Your task to perform on an android device: install app "WhatsApp Messenger" Image 0: 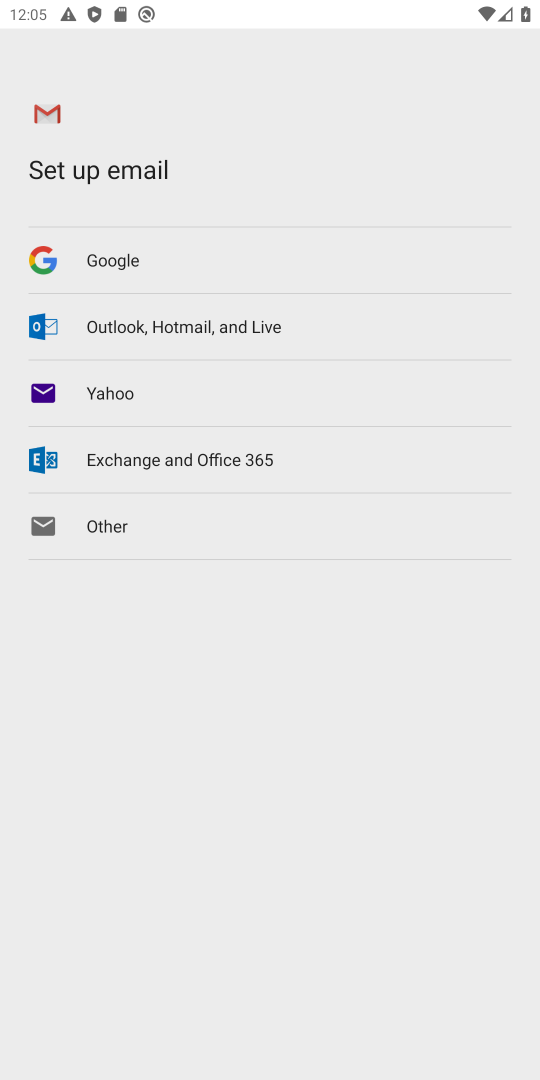
Step 0: press home button
Your task to perform on an android device: install app "WhatsApp Messenger" Image 1: 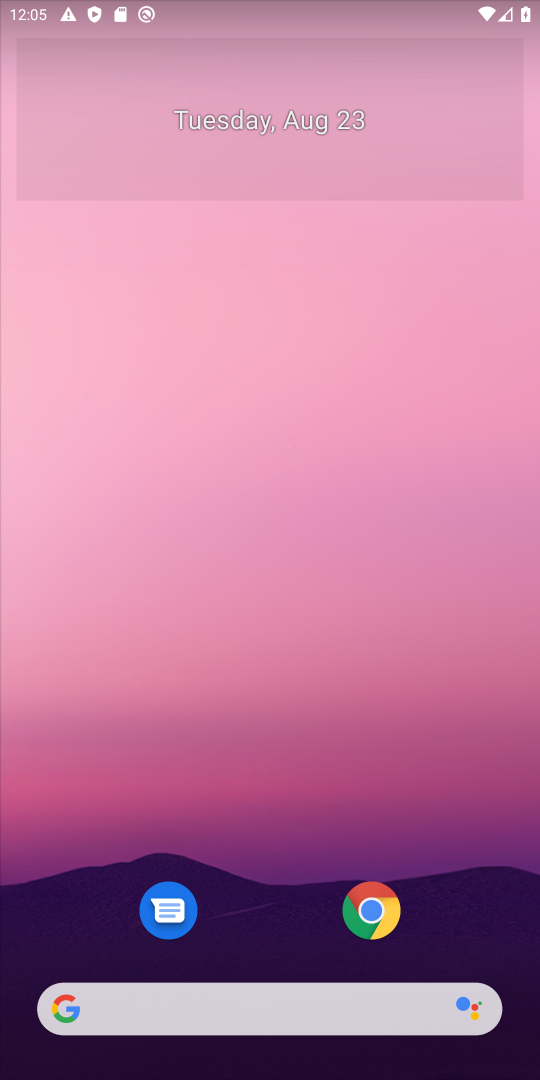
Step 1: drag from (339, 348) to (394, 121)
Your task to perform on an android device: install app "WhatsApp Messenger" Image 2: 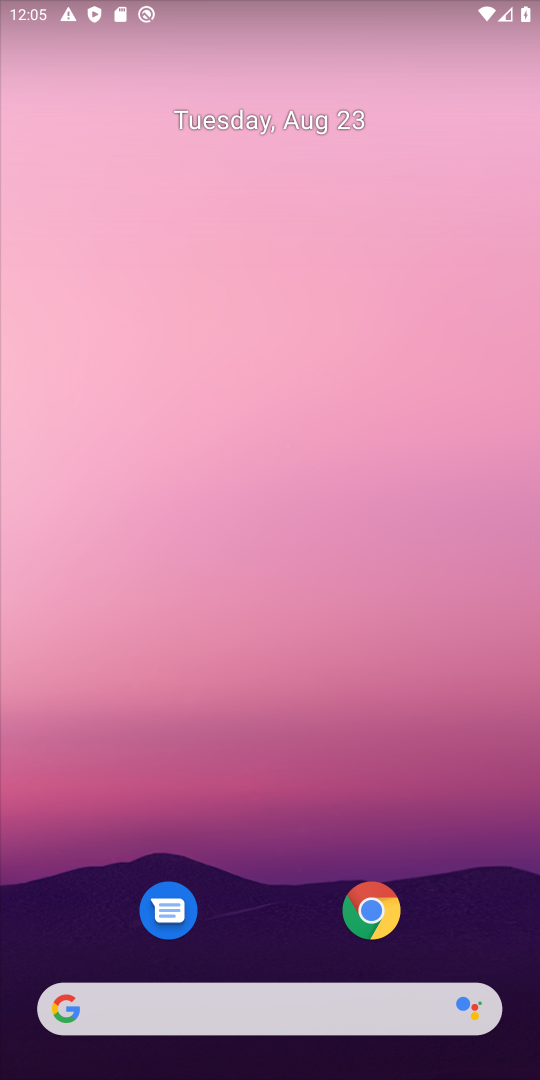
Step 2: drag from (325, 927) to (335, 100)
Your task to perform on an android device: install app "WhatsApp Messenger" Image 3: 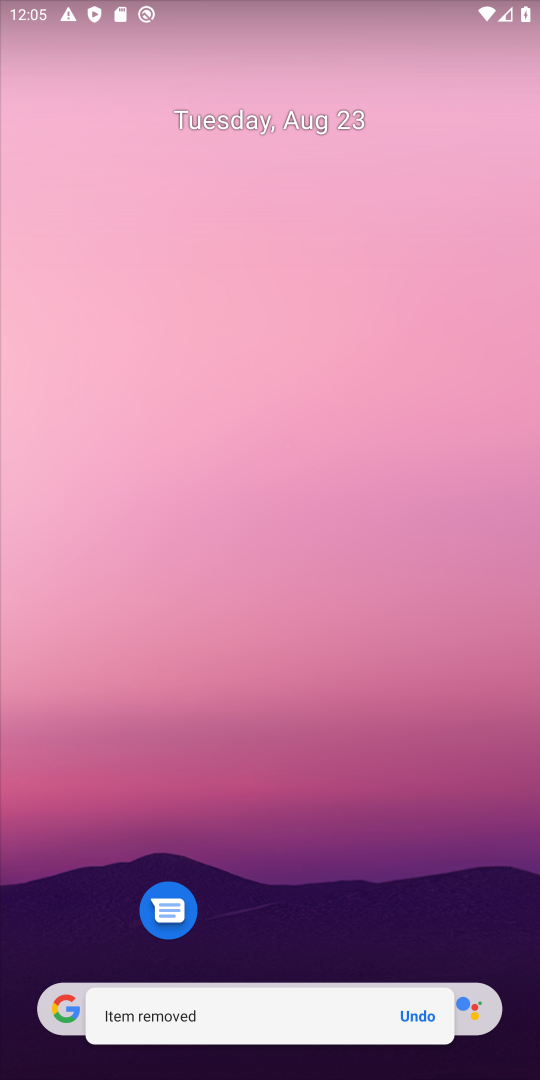
Step 3: click (289, 717)
Your task to perform on an android device: install app "WhatsApp Messenger" Image 4: 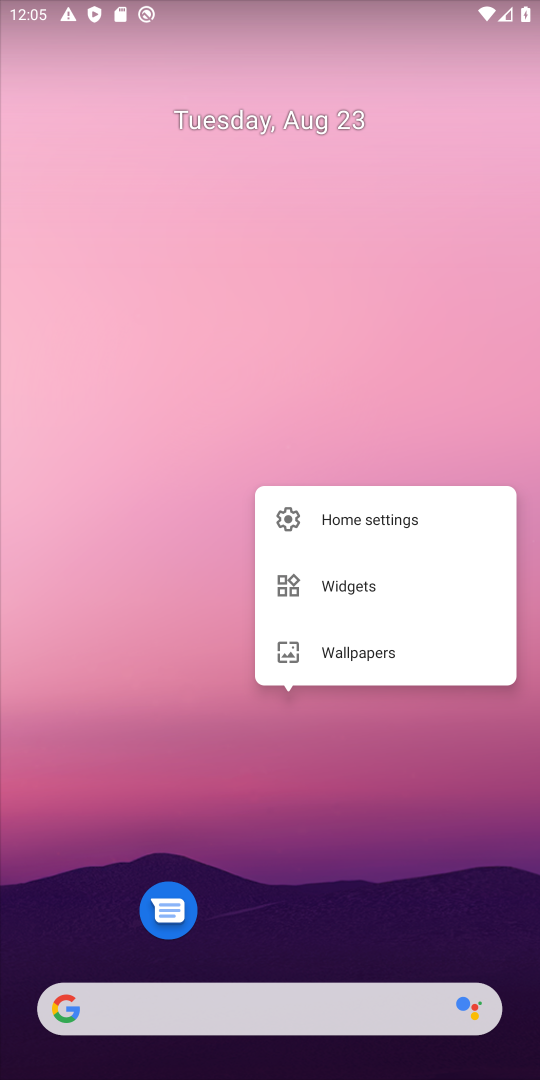
Step 4: click (206, 711)
Your task to perform on an android device: install app "WhatsApp Messenger" Image 5: 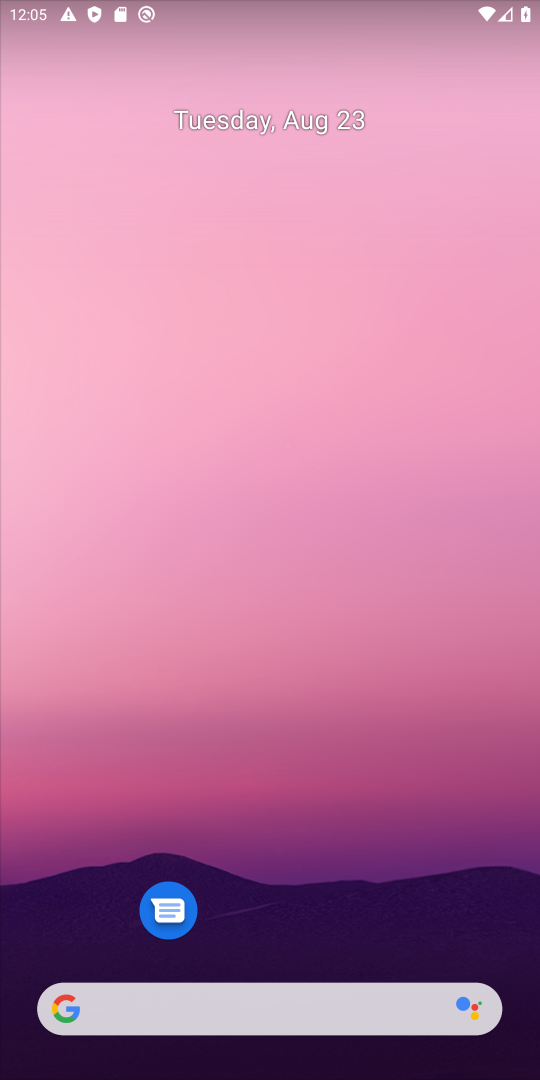
Step 5: drag from (367, 923) to (389, 10)
Your task to perform on an android device: install app "WhatsApp Messenger" Image 6: 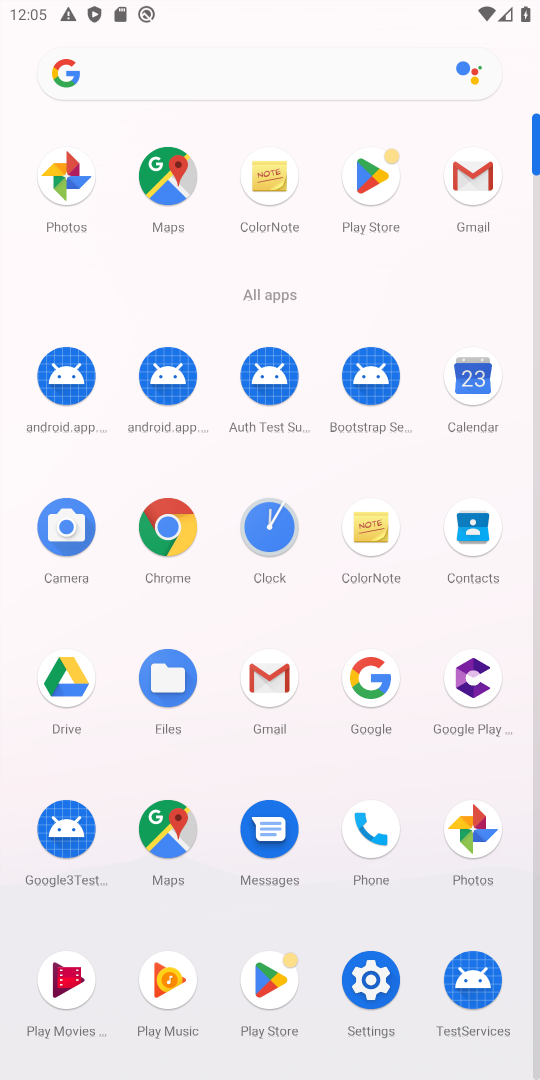
Step 6: click (363, 192)
Your task to perform on an android device: install app "WhatsApp Messenger" Image 7: 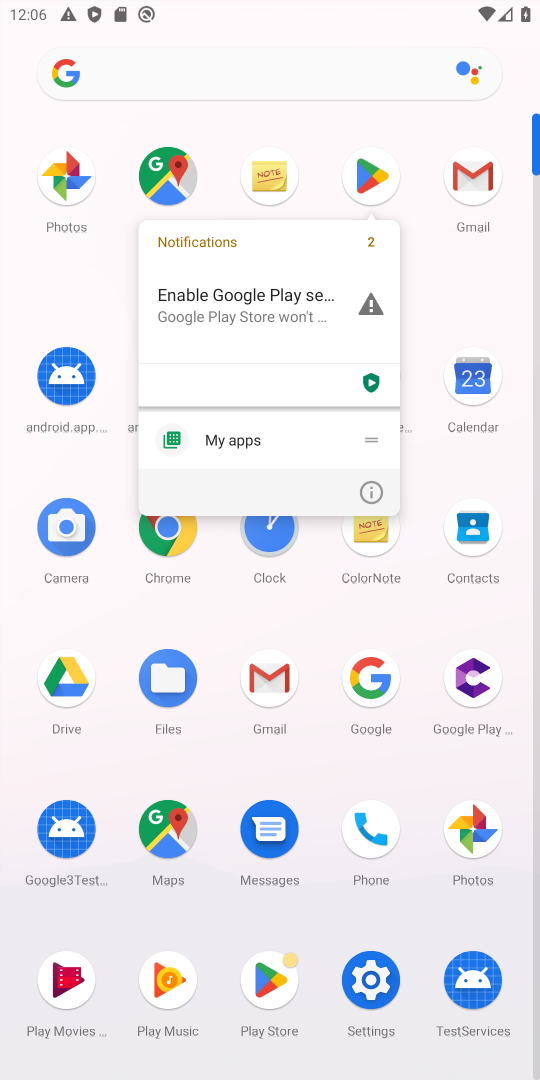
Step 7: click (363, 193)
Your task to perform on an android device: install app "WhatsApp Messenger" Image 8: 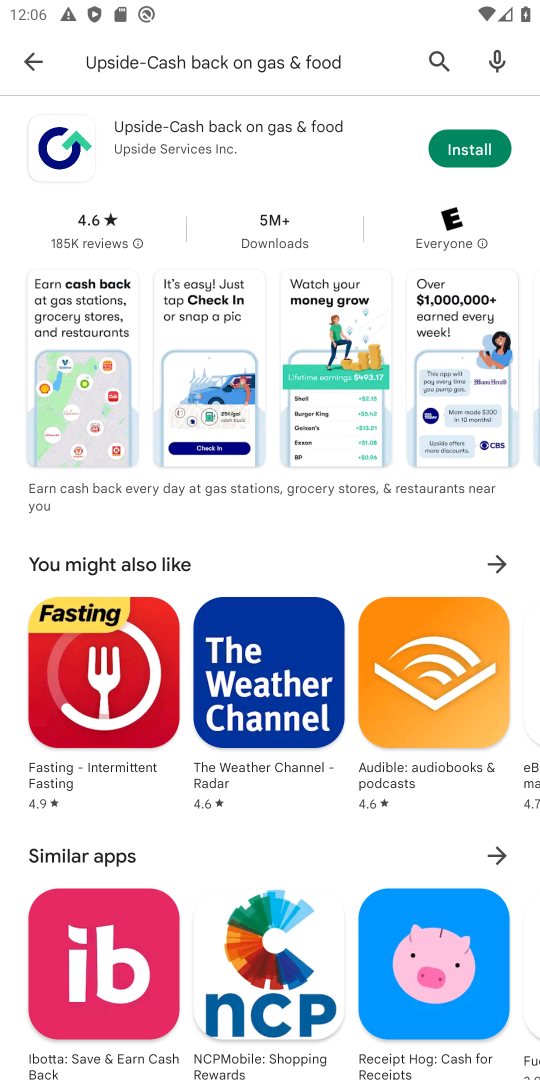
Step 8: press back button
Your task to perform on an android device: install app "WhatsApp Messenger" Image 9: 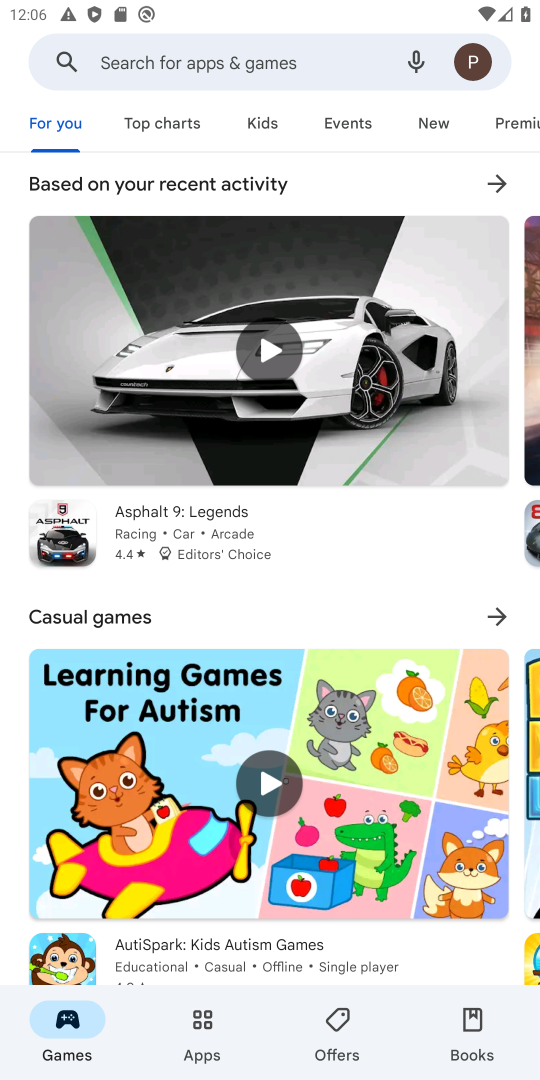
Step 9: click (143, 55)
Your task to perform on an android device: install app "WhatsApp Messenger" Image 10: 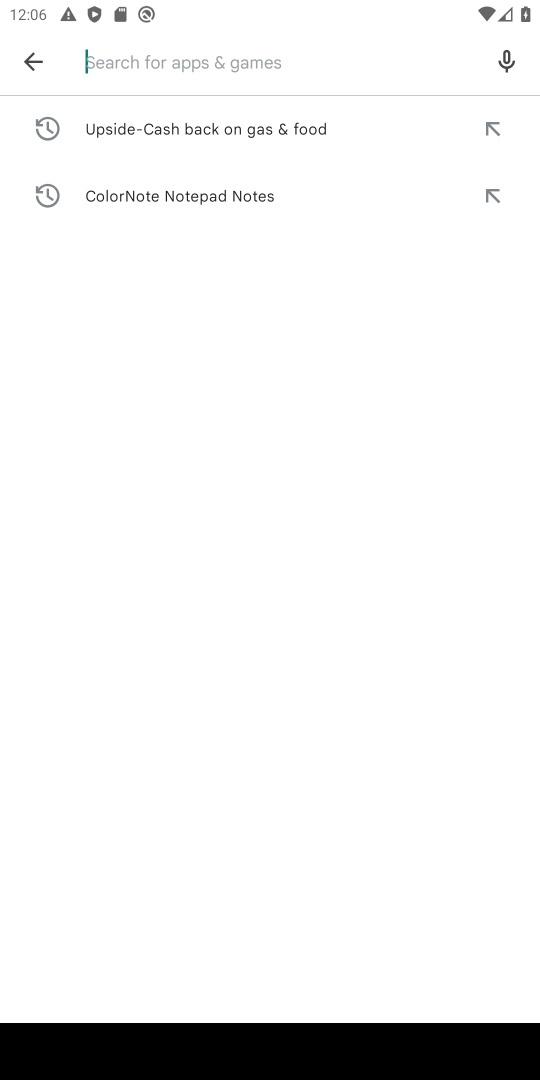
Step 10: type "WhatsApp Messenger"
Your task to perform on an android device: install app "WhatsApp Messenger" Image 11: 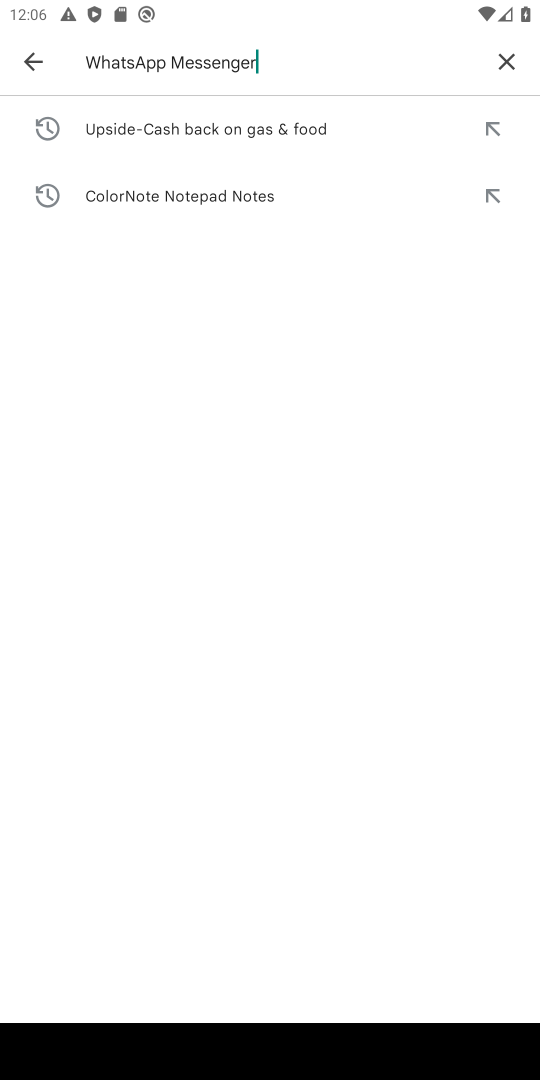
Step 11: press enter
Your task to perform on an android device: install app "WhatsApp Messenger" Image 12: 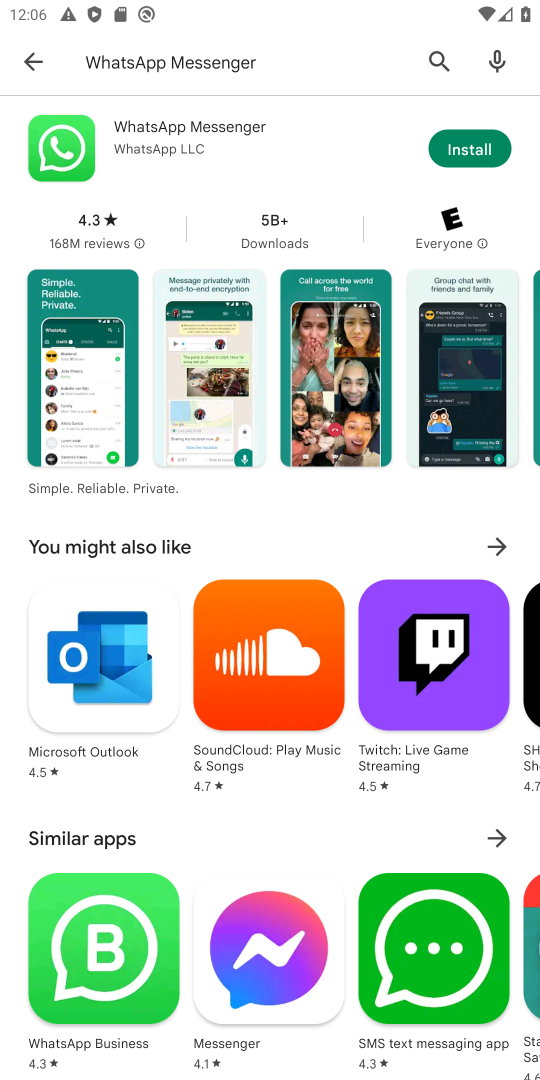
Step 12: click (483, 149)
Your task to perform on an android device: install app "WhatsApp Messenger" Image 13: 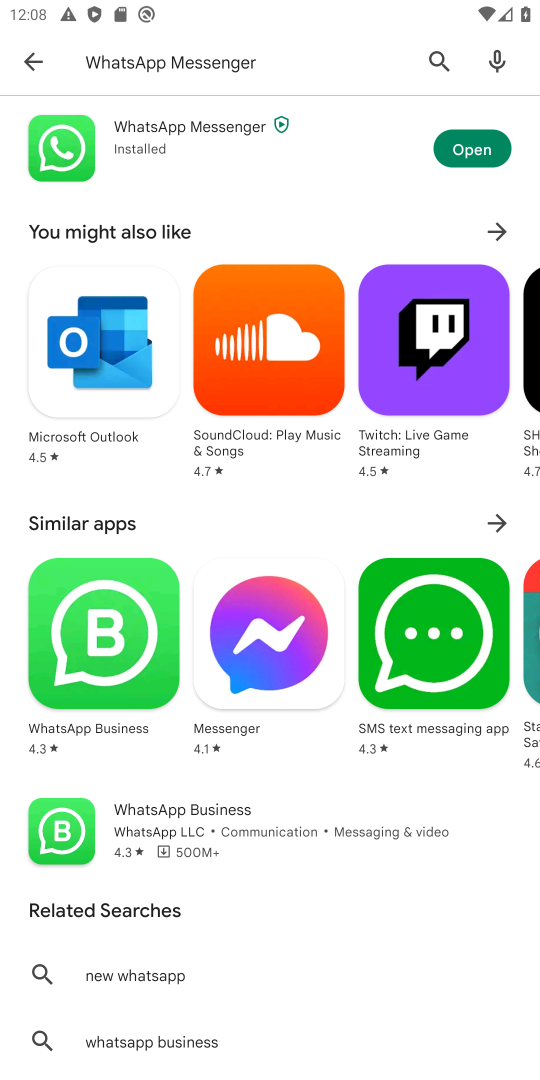
Step 13: click (506, 148)
Your task to perform on an android device: install app "WhatsApp Messenger" Image 14: 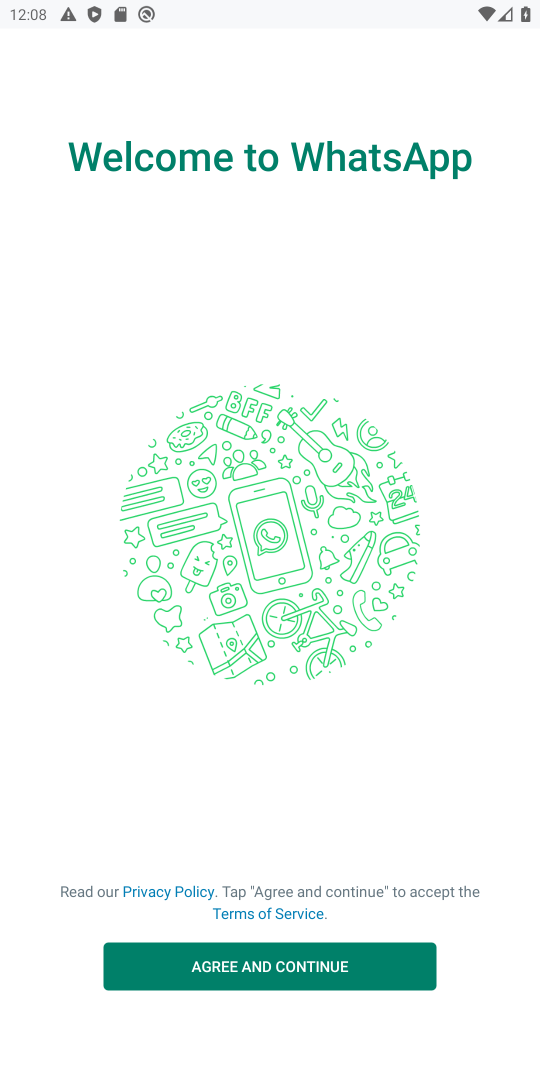
Step 14: task complete